Your task to perform on an android device: turn off improve location accuracy Image 0: 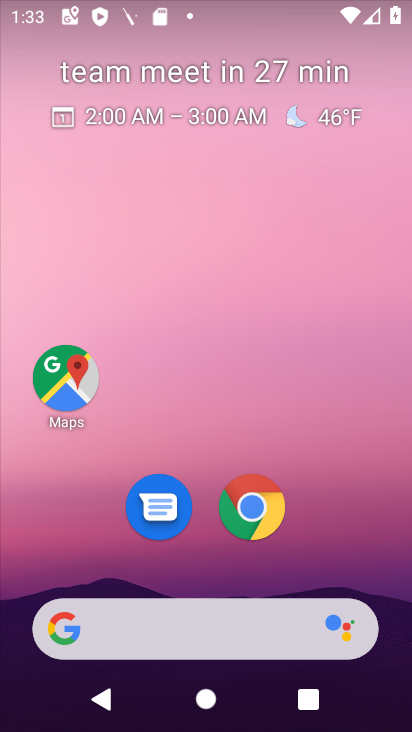
Step 0: drag from (261, 658) to (190, 128)
Your task to perform on an android device: turn off improve location accuracy Image 1: 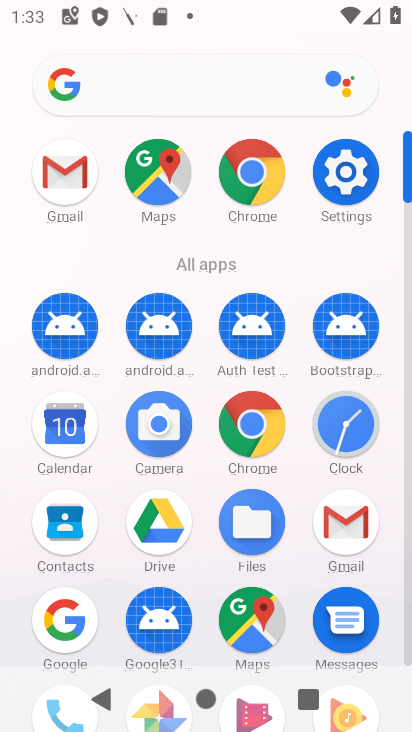
Step 1: click (360, 169)
Your task to perform on an android device: turn off improve location accuracy Image 2: 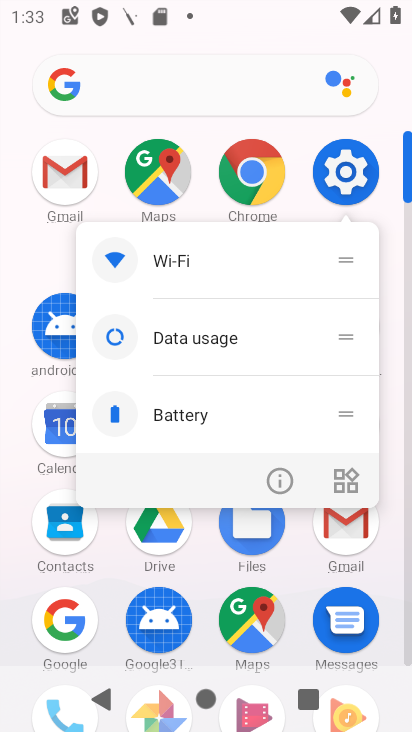
Step 2: click (331, 172)
Your task to perform on an android device: turn off improve location accuracy Image 3: 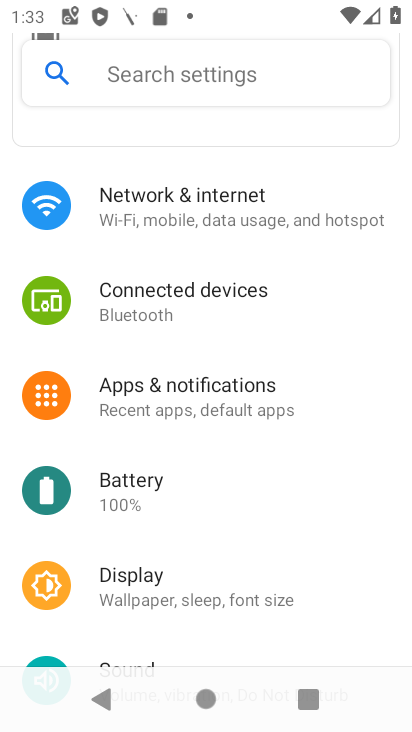
Step 3: click (132, 80)
Your task to perform on an android device: turn off improve location accuracy Image 4: 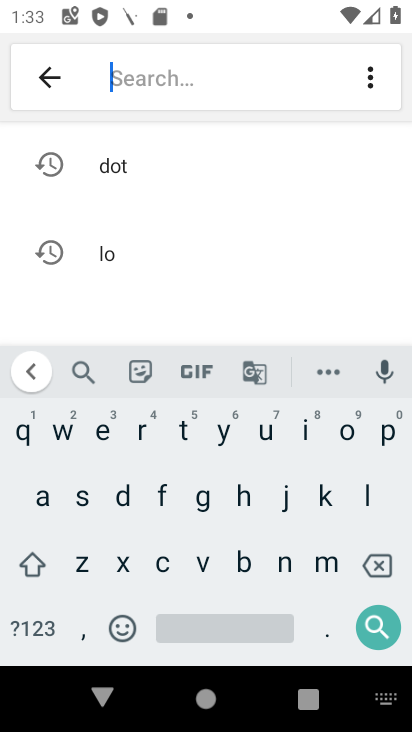
Step 4: click (122, 251)
Your task to perform on an android device: turn off improve location accuracy Image 5: 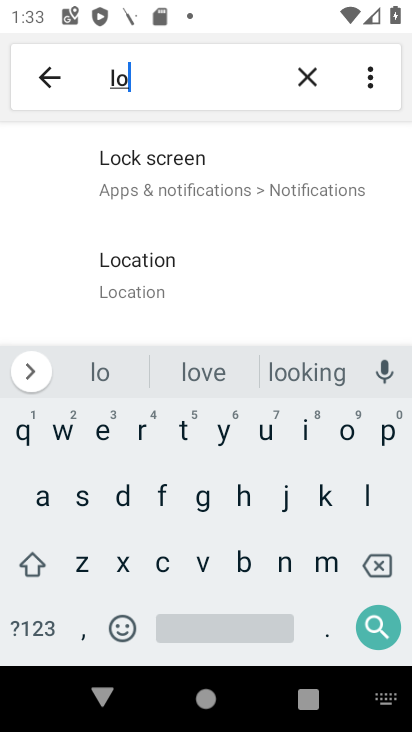
Step 5: click (164, 265)
Your task to perform on an android device: turn off improve location accuracy Image 6: 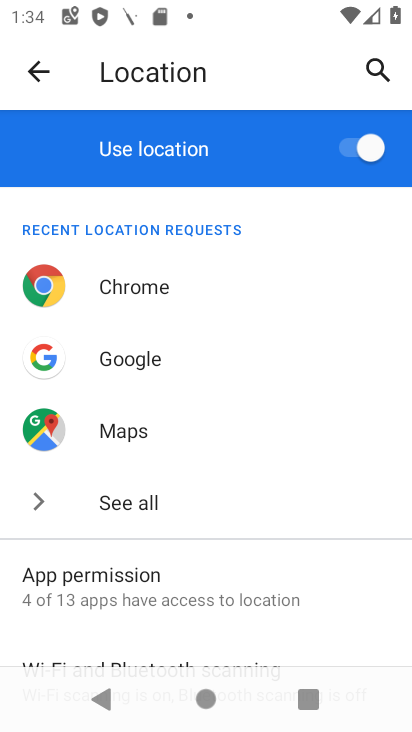
Step 6: drag from (231, 547) to (251, 255)
Your task to perform on an android device: turn off improve location accuracy Image 7: 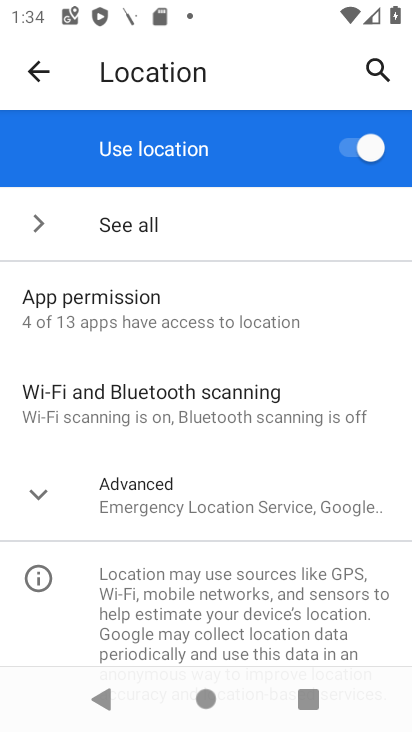
Step 7: click (36, 504)
Your task to perform on an android device: turn off improve location accuracy Image 8: 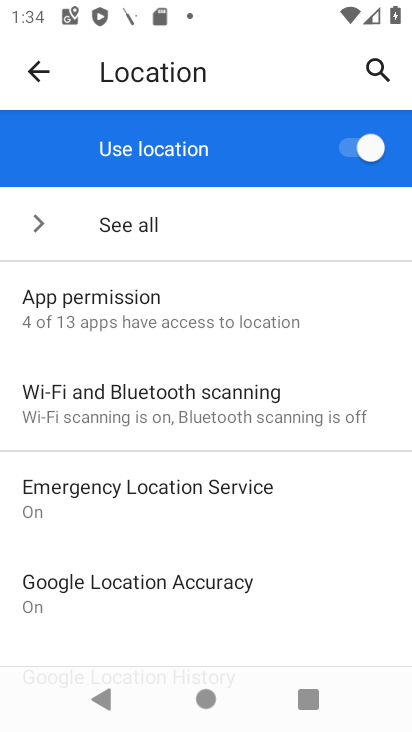
Step 8: click (171, 580)
Your task to perform on an android device: turn off improve location accuracy Image 9: 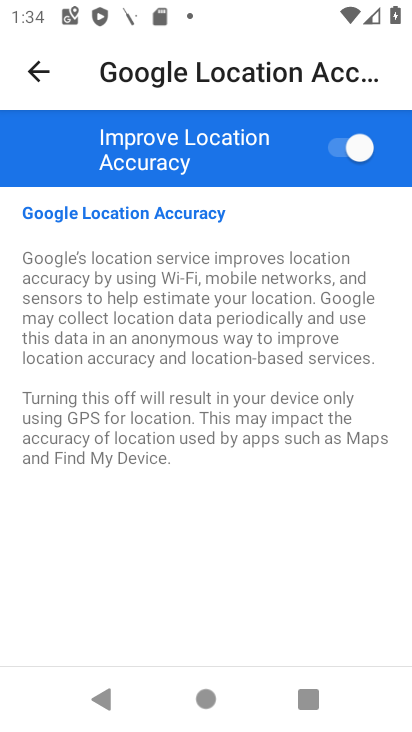
Step 9: task complete